Your task to perform on an android device: star an email in the gmail app Image 0: 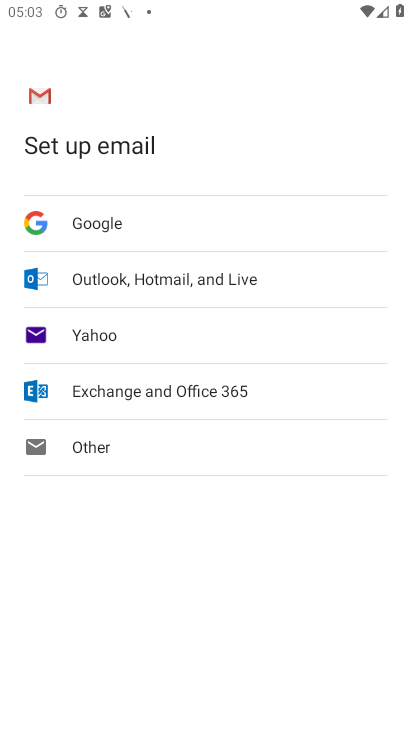
Step 0: press home button
Your task to perform on an android device: star an email in the gmail app Image 1: 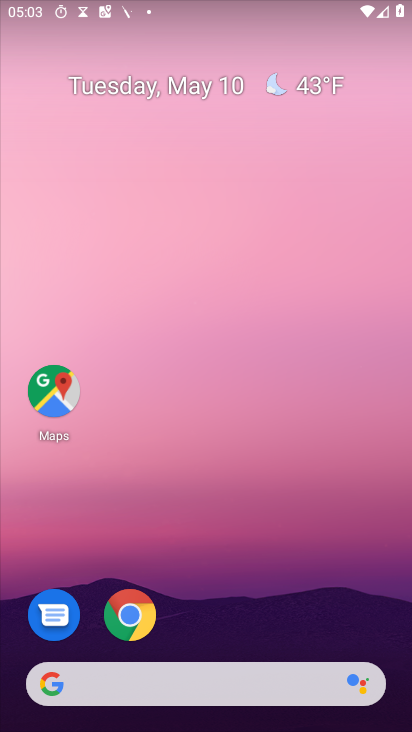
Step 1: drag from (263, 690) to (266, 120)
Your task to perform on an android device: star an email in the gmail app Image 2: 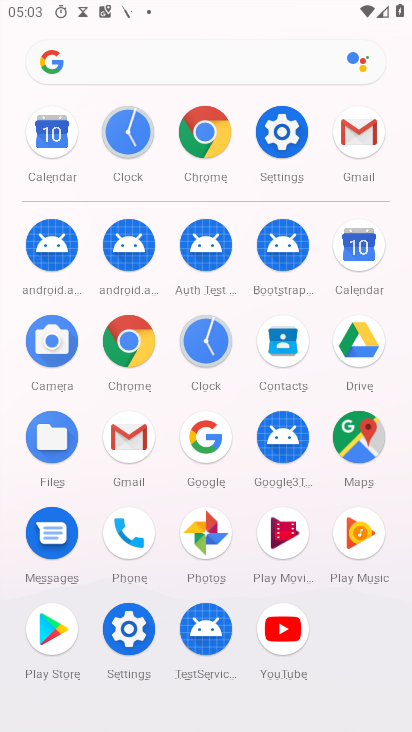
Step 2: click (119, 425)
Your task to perform on an android device: star an email in the gmail app Image 3: 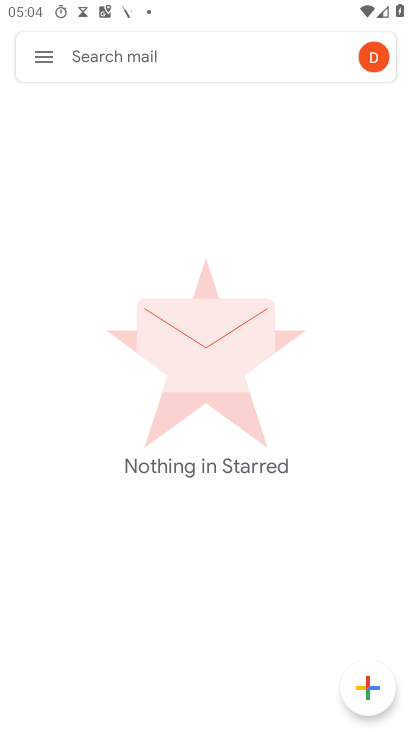
Step 3: click (33, 52)
Your task to perform on an android device: star an email in the gmail app Image 4: 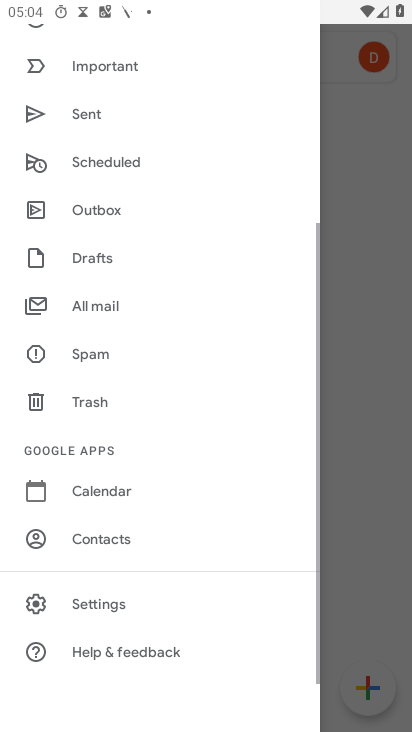
Step 4: drag from (118, 139) to (156, 508)
Your task to perform on an android device: star an email in the gmail app Image 5: 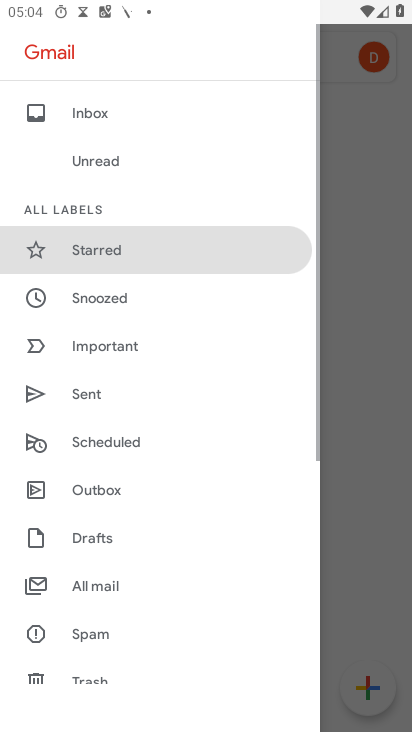
Step 5: click (172, 256)
Your task to perform on an android device: star an email in the gmail app Image 6: 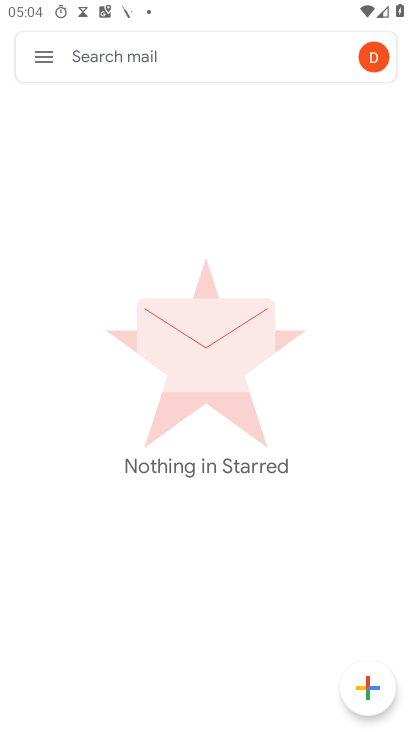
Step 6: task complete